Your task to perform on an android device: turn off location Image 0: 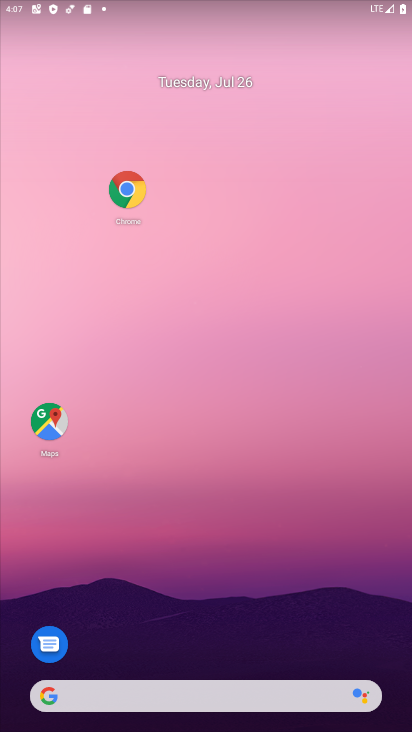
Step 0: drag from (214, 673) to (203, 157)
Your task to perform on an android device: turn off location Image 1: 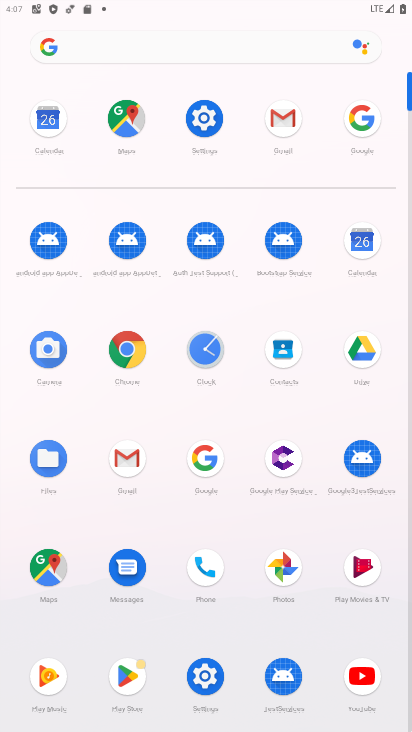
Step 1: click (209, 113)
Your task to perform on an android device: turn off location Image 2: 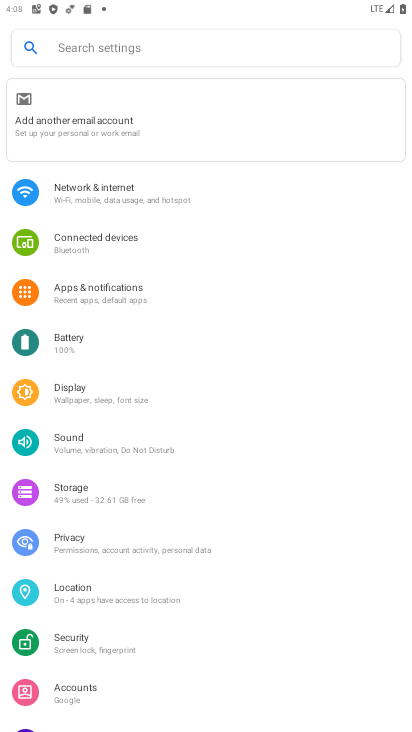
Step 2: click (100, 590)
Your task to perform on an android device: turn off location Image 3: 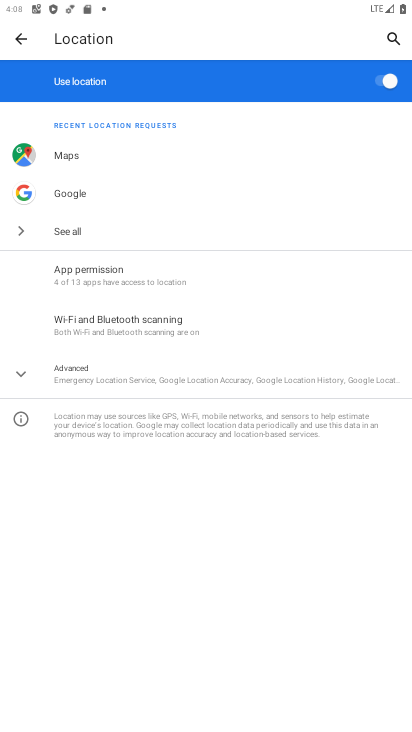
Step 3: click (377, 73)
Your task to perform on an android device: turn off location Image 4: 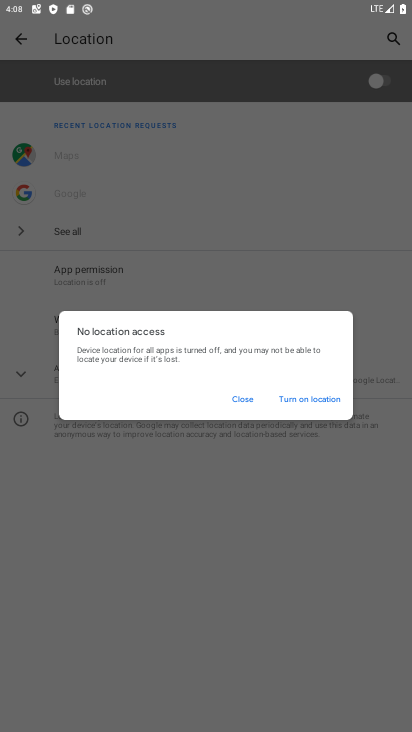
Step 4: click (232, 399)
Your task to perform on an android device: turn off location Image 5: 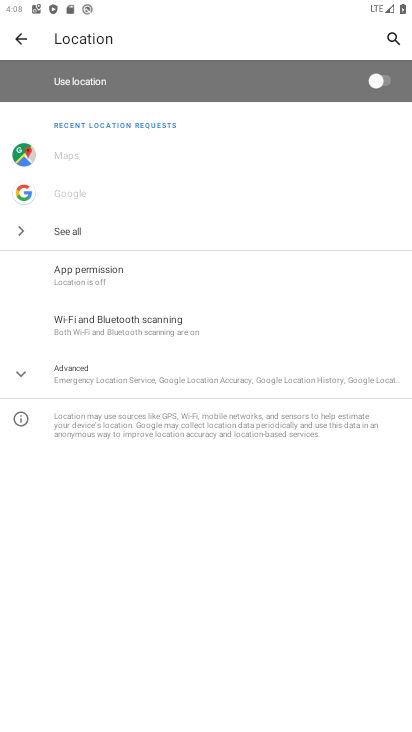
Step 5: press home button
Your task to perform on an android device: turn off location Image 6: 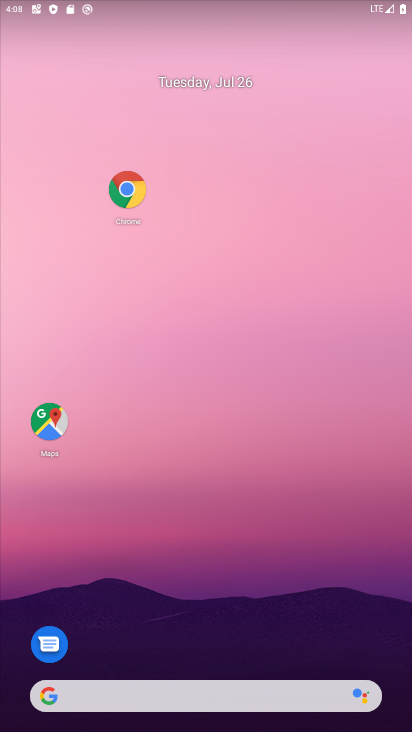
Step 6: drag from (174, 681) to (186, 160)
Your task to perform on an android device: turn off location Image 7: 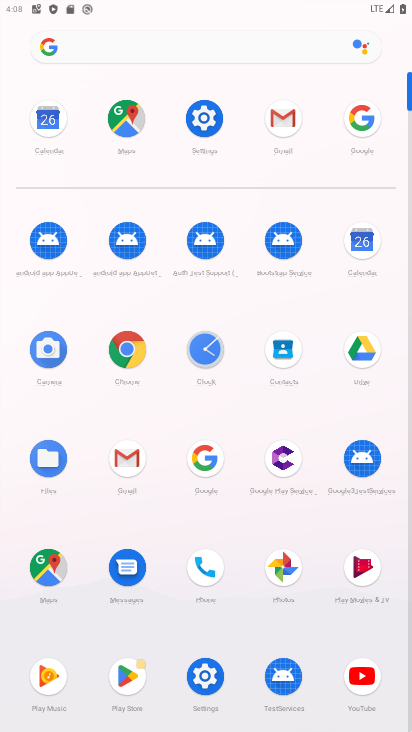
Step 7: click (198, 121)
Your task to perform on an android device: turn off location Image 8: 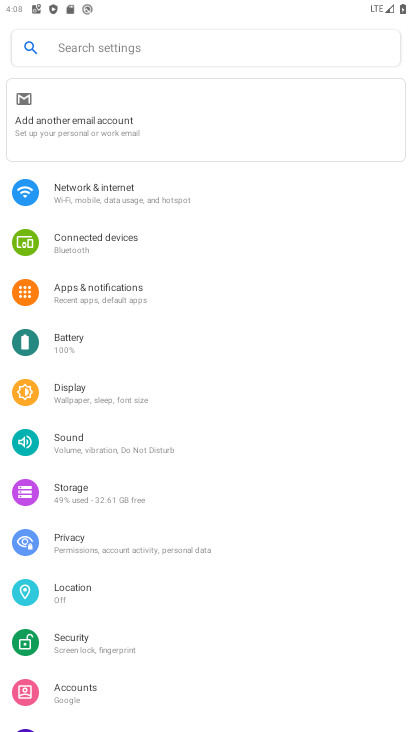
Step 8: click (85, 596)
Your task to perform on an android device: turn off location Image 9: 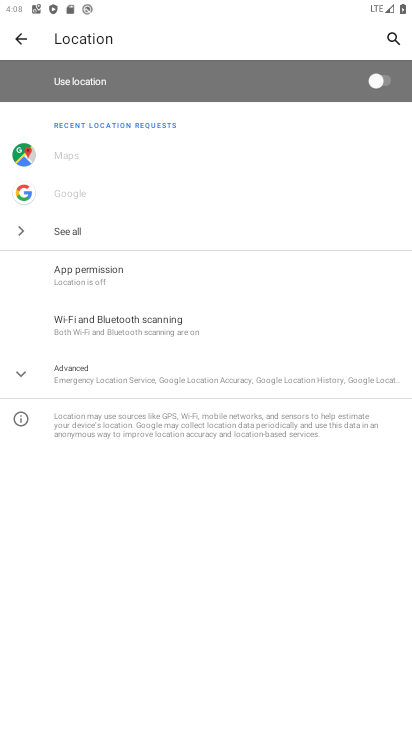
Step 9: task complete